Your task to perform on an android device: turn off javascript in the chrome app Image 0: 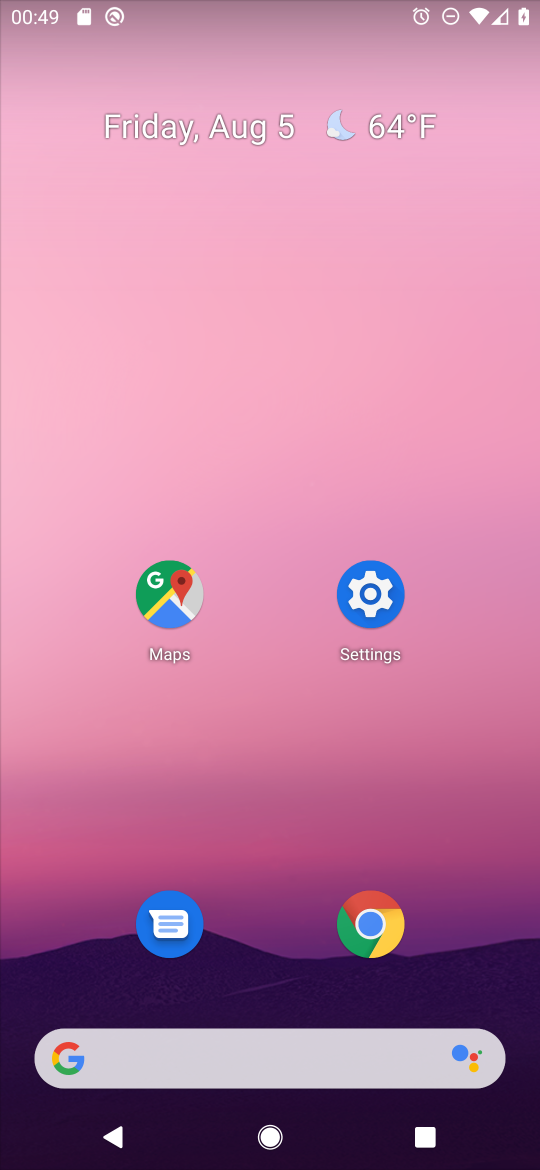
Step 0: click (371, 925)
Your task to perform on an android device: turn off javascript in the chrome app Image 1: 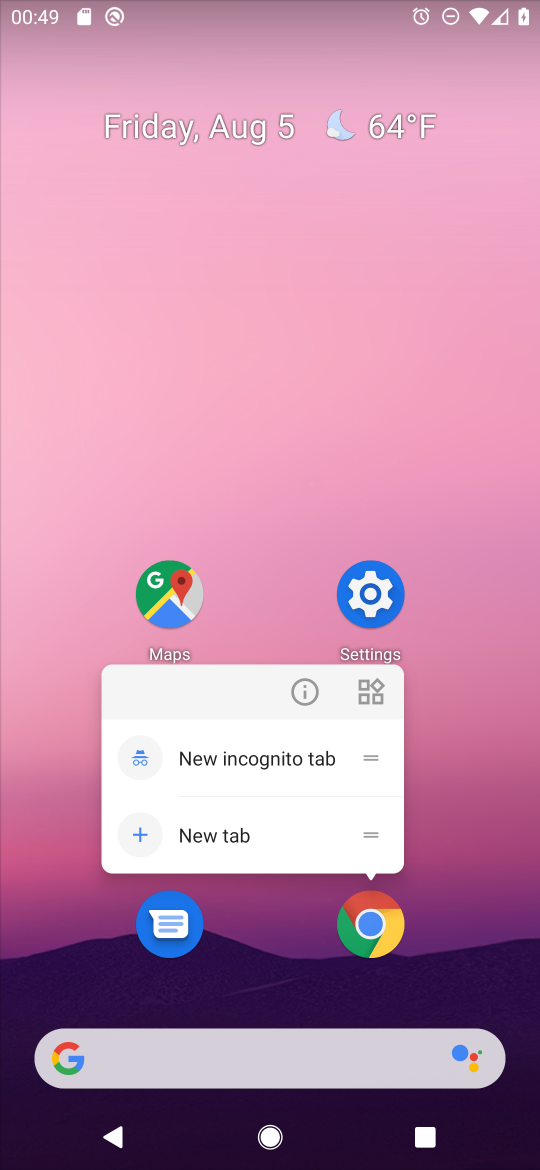
Step 1: click (371, 925)
Your task to perform on an android device: turn off javascript in the chrome app Image 2: 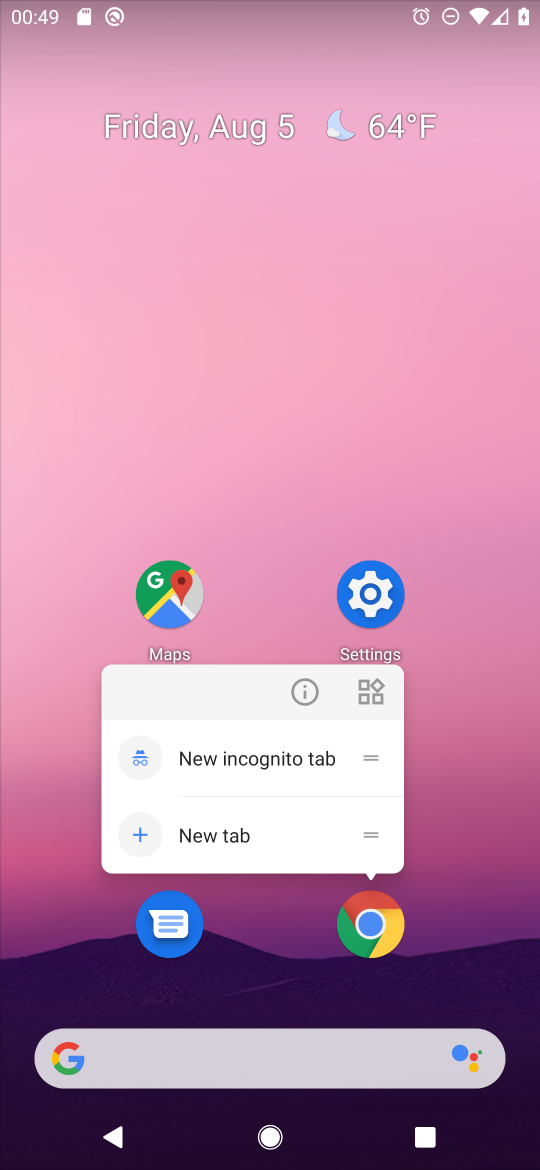
Step 2: click (371, 928)
Your task to perform on an android device: turn off javascript in the chrome app Image 3: 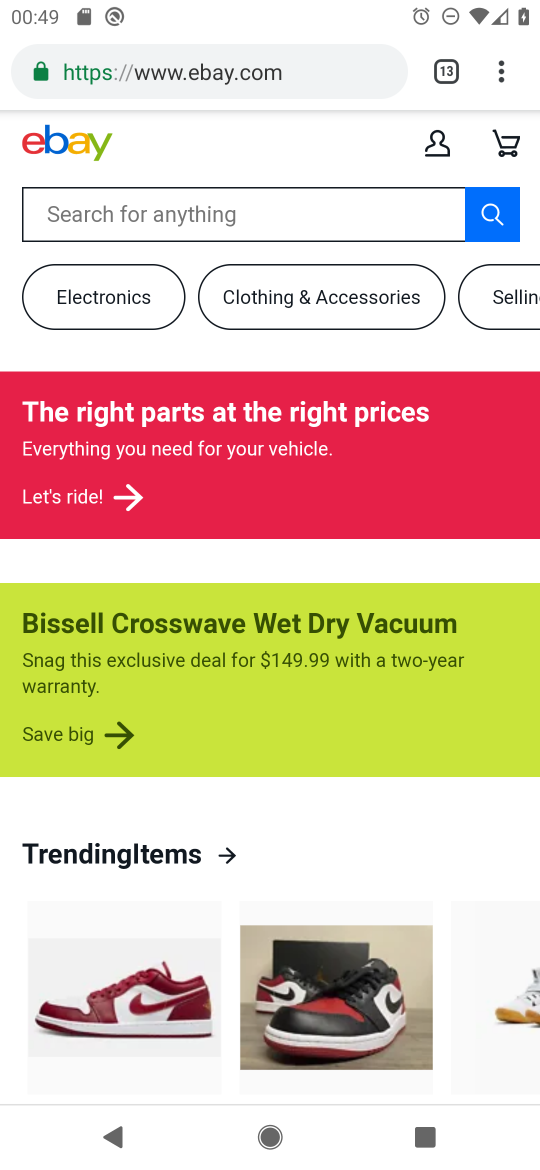
Step 3: drag from (503, 72) to (262, 869)
Your task to perform on an android device: turn off javascript in the chrome app Image 4: 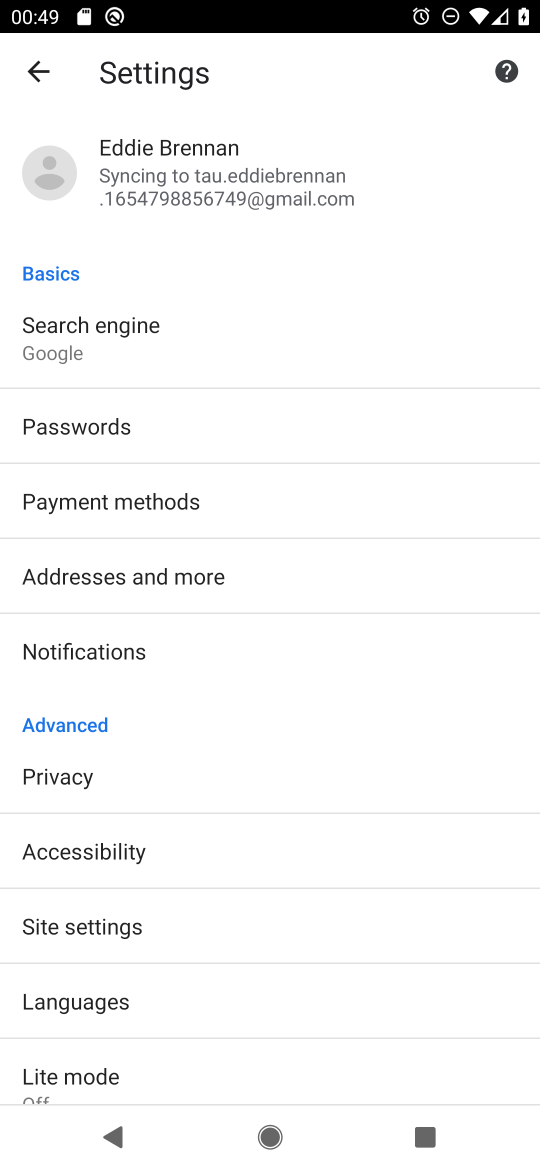
Step 4: click (99, 924)
Your task to perform on an android device: turn off javascript in the chrome app Image 5: 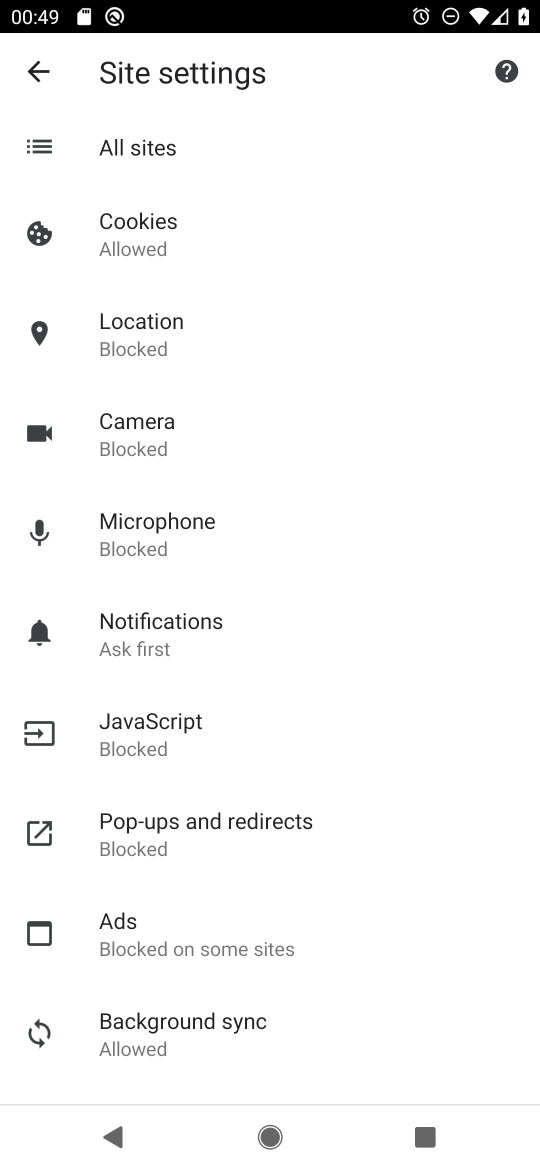
Step 5: click (143, 723)
Your task to perform on an android device: turn off javascript in the chrome app Image 6: 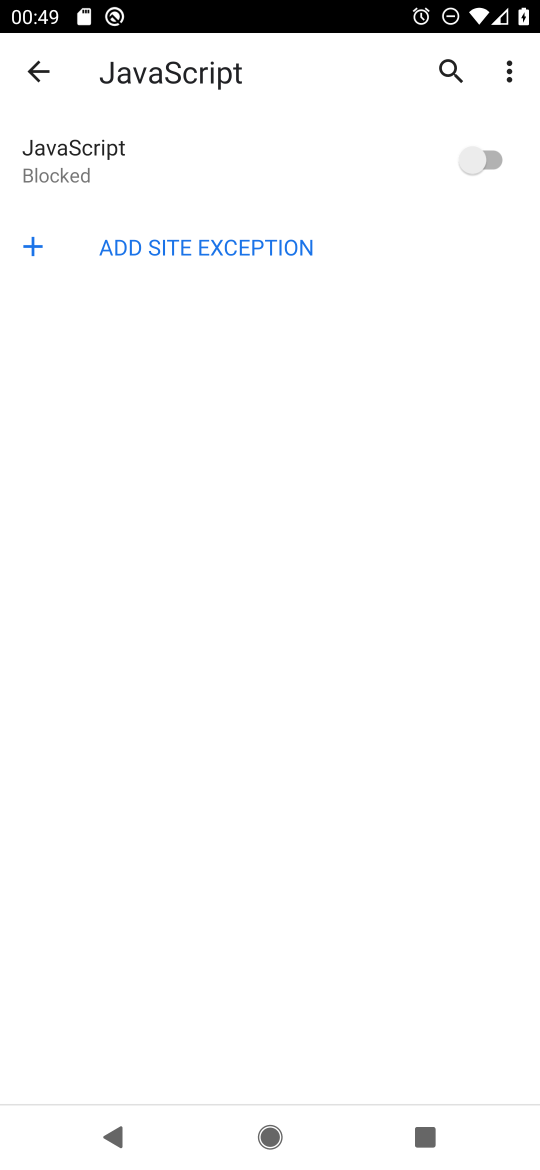
Step 6: task complete